Your task to perform on an android device: turn off data saver in the chrome app Image 0: 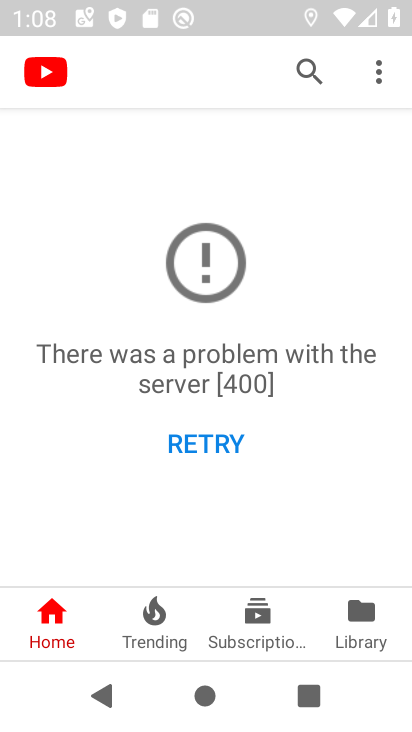
Step 0: press home button
Your task to perform on an android device: turn off data saver in the chrome app Image 1: 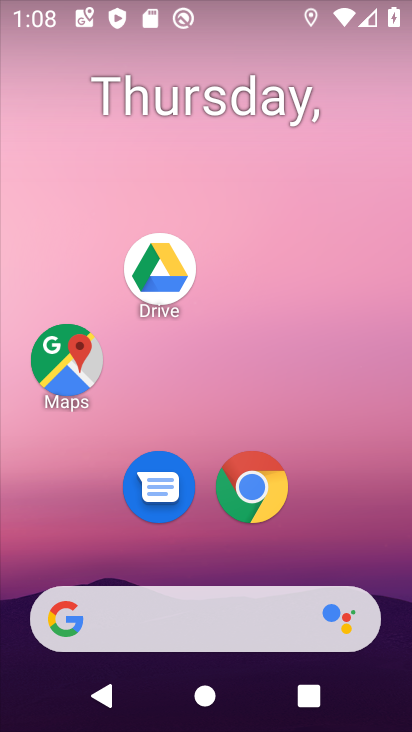
Step 1: click (271, 492)
Your task to perform on an android device: turn off data saver in the chrome app Image 2: 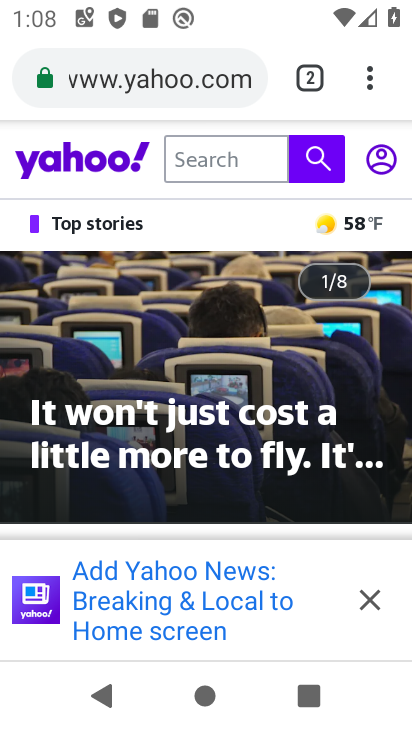
Step 2: click (365, 84)
Your task to perform on an android device: turn off data saver in the chrome app Image 3: 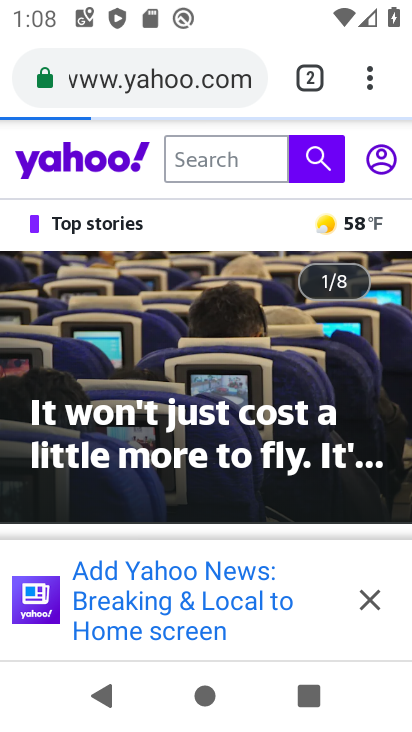
Step 3: drag from (365, 83) to (123, 565)
Your task to perform on an android device: turn off data saver in the chrome app Image 4: 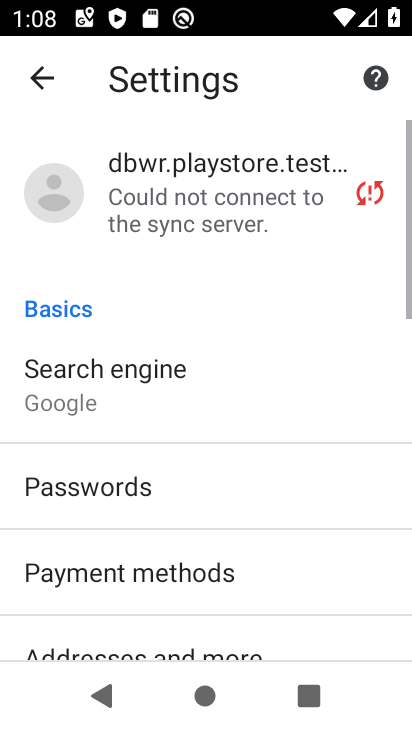
Step 4: drag from (132, 543) to (78, 61)
Your task to perform on an android device: turn off data saver in the chrome app Image 5: 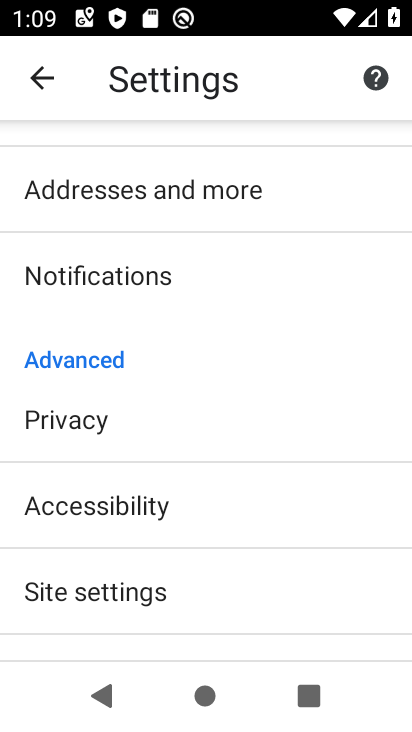
Step 5: drag from (143, 589) to (130, 270)
Your task to perform on an android device: turn off data saver in the chrome app Image 6: 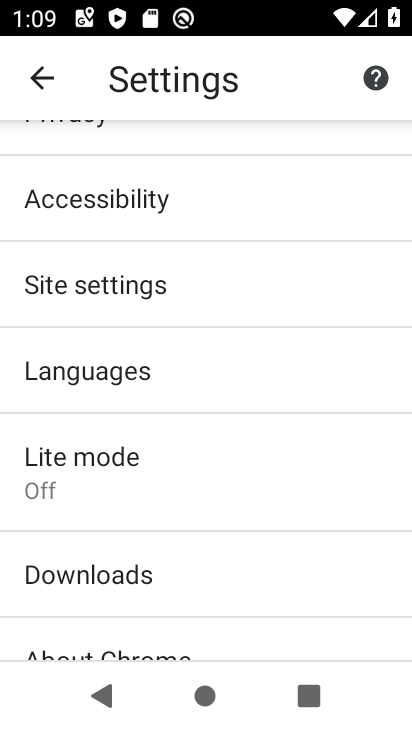
Step 6: click (114, 475)
Your task to perform on an android device: turn off data saver in the chrome app Image 7: 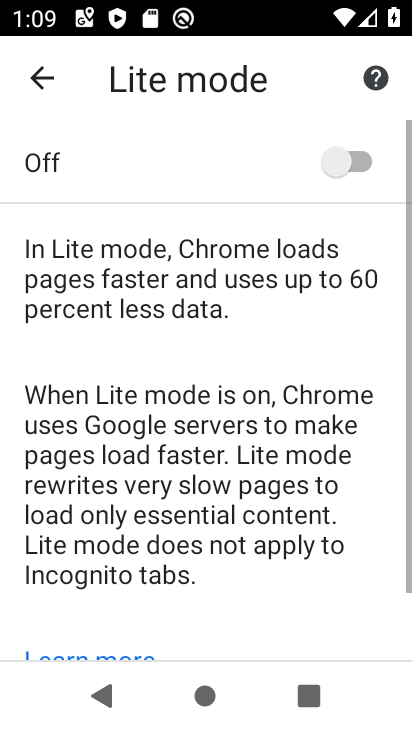
Step 7: task complete